Your task to perform on an android device: Open calendar and show me the fourth week of next month Image 0: 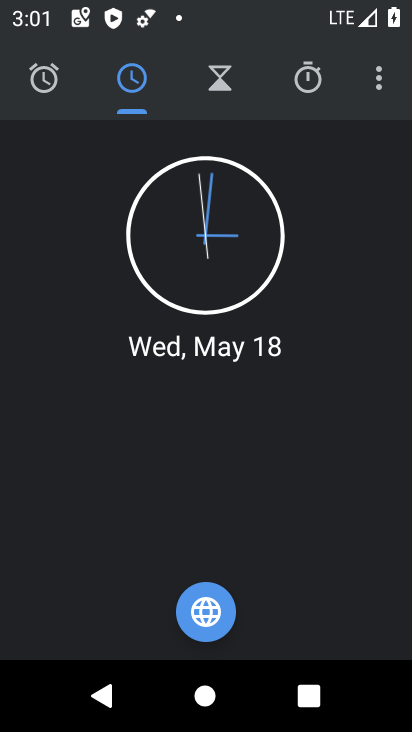
Step 0: press home button
Your task to perform on an android device: Open calendar and show me the fourth week of next month Image 1: 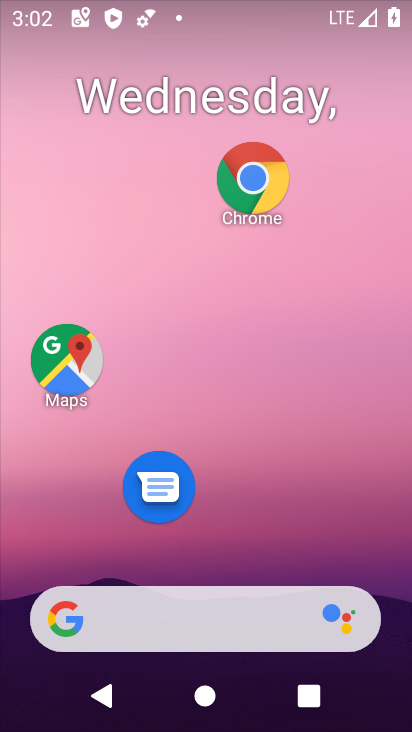
Step 1: drag from (244, 533) to (411, 13)
Your task to perform on an android device: Open calendar and show me the fourth week of next month Image 2: 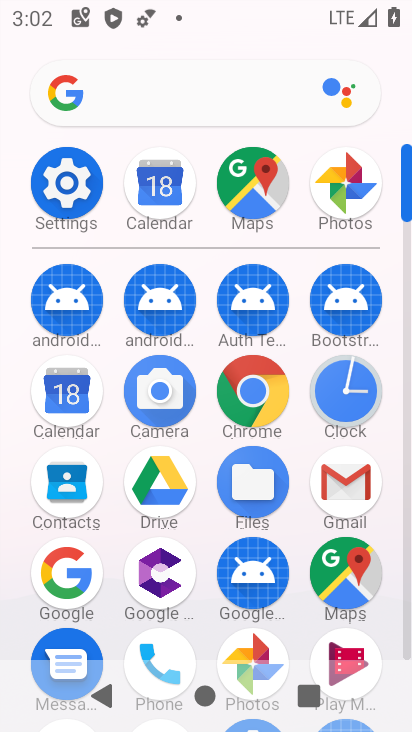
Step 2: click (162, 187)
Your task to perform on an android device: Open calendar and show me the fourth week of next month Image 3: 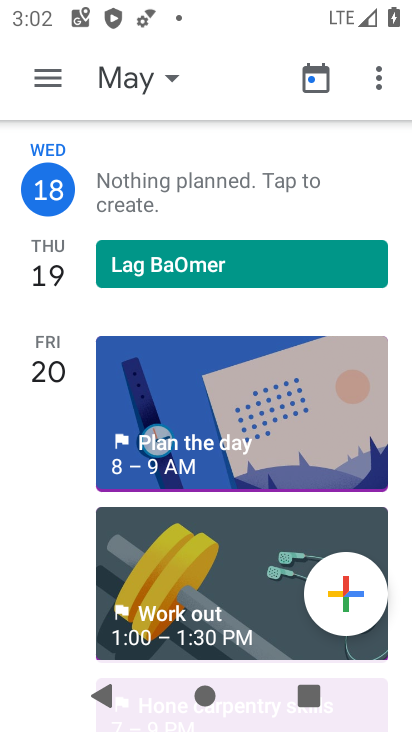
Step 3: click (147, 77)
Your task to perform on an android device: Open calendar and show me the fourth week of next month Image 4: 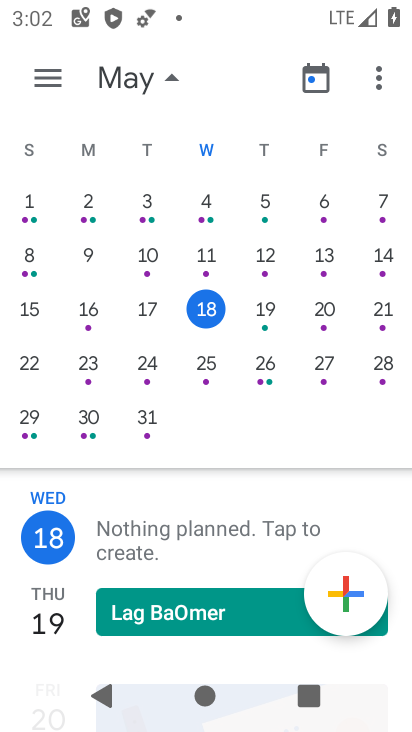
Step 4: drag from (400, 272) to (90, 234)
Your task to perform on an android device: Open calendar and show me the fourth week of next month Image 5: 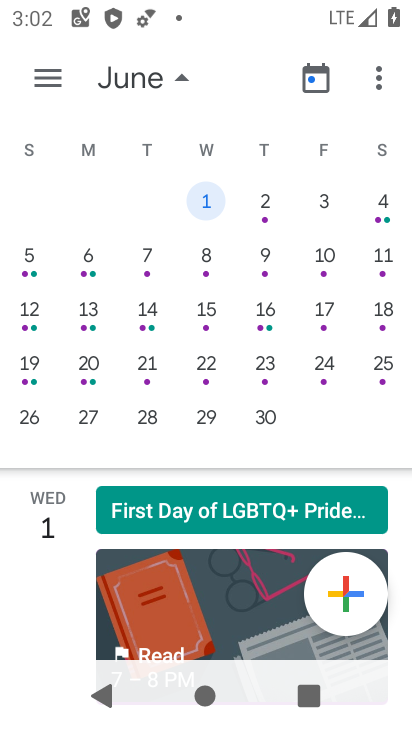
Step 5: click (40, 364)
Your task to perform on an android device: Open calendar and show me the fourth week of next month Image 6: 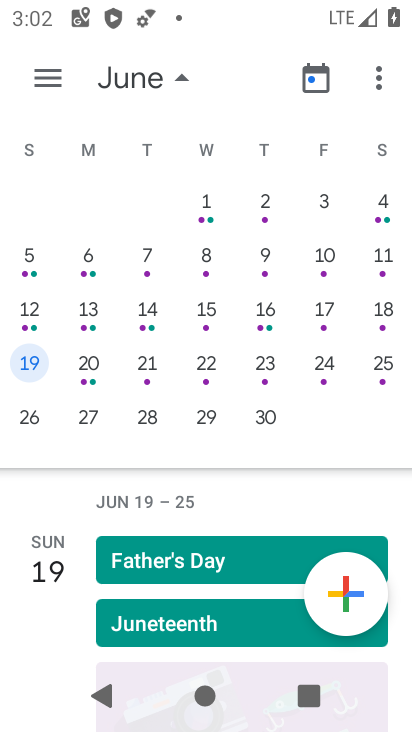
Step 6: task complete